Your task to perform on an android device: Go to Android settings Image 0: 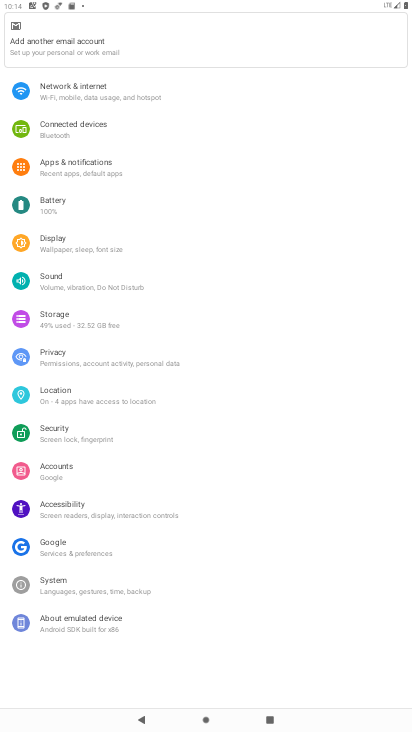
Step 0: task complete